Your task to perform on an android device: manage bookmarks in the chrome app Image 0: 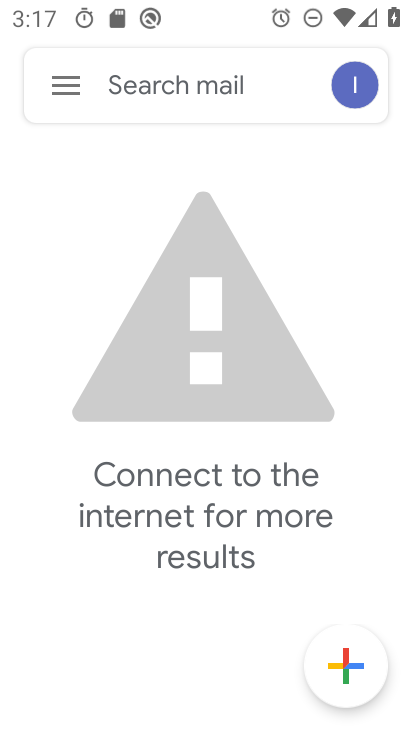
Step 0: press home button
Your task to perform on an android device: manage bookmarks in the chrome app Image 1: 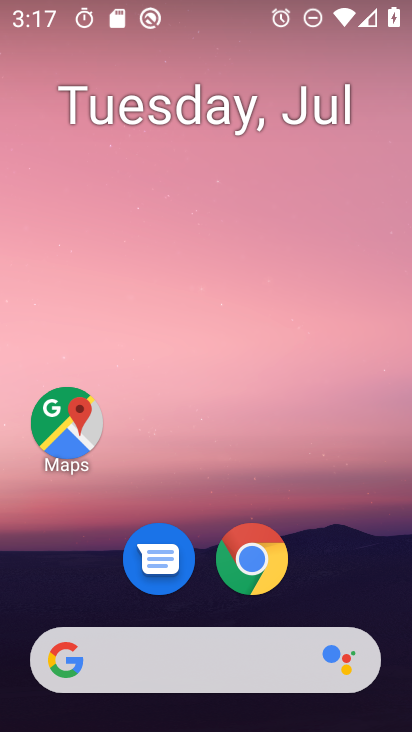
Step 1: drag from (353, 589) to (337, 131)
Your task to perform on an android device: manage bookmarks in the chrome app Image 2: 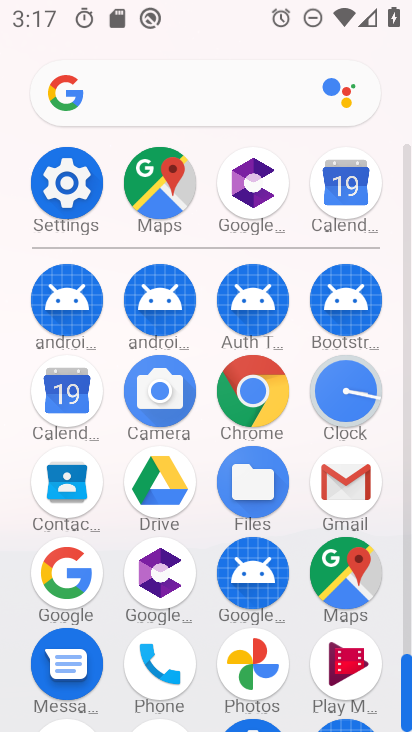
Step 2: click (272, 379)
Your task to perform on an android device: manage bookmarks in the chrome app Image 3: 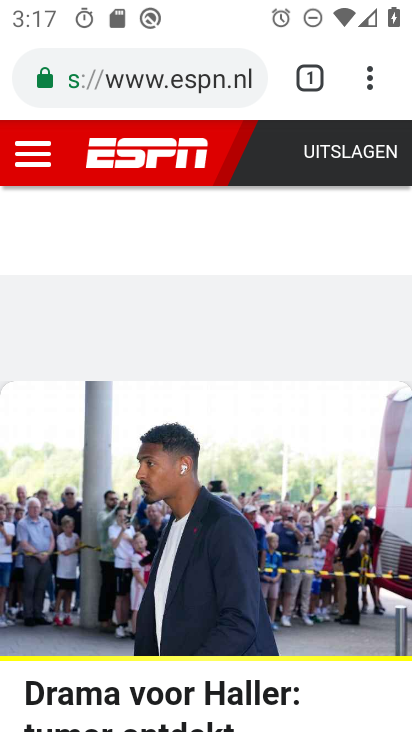
Step 3: click (370, 85)
Your task to perform on an android device: manage bookmarks in the chrome app Image 4: 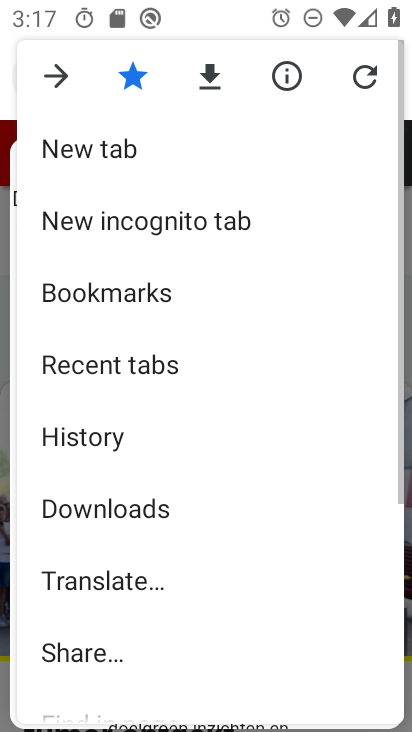
Step 4: click (188, 295)
Your task to perform on an android device: manage bookmarks in the chrome app Image 5: 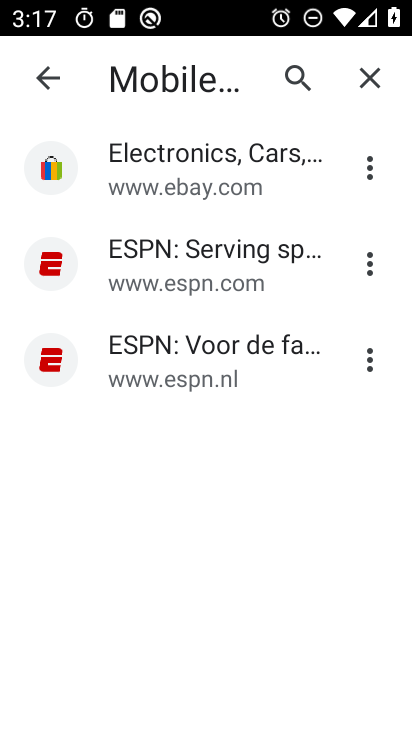
Step 5: click (375, 166)
Your task to perform on an android device: manage bookmarks in the chrome app Image 6: 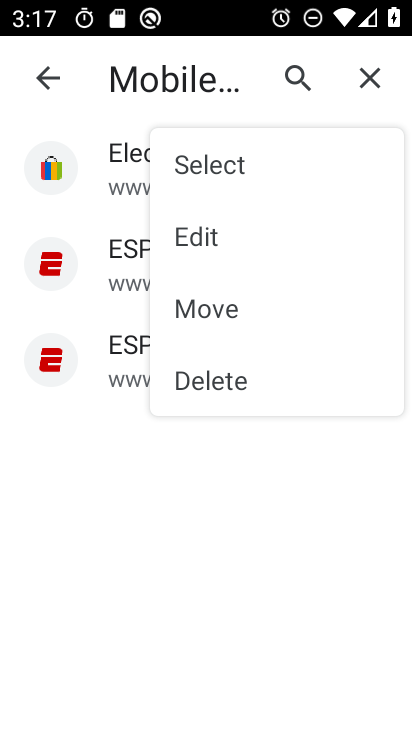
Step 6: click (290, 234)
Your task to perform on an android device: manage bookmarks in the chrome app Image 7: 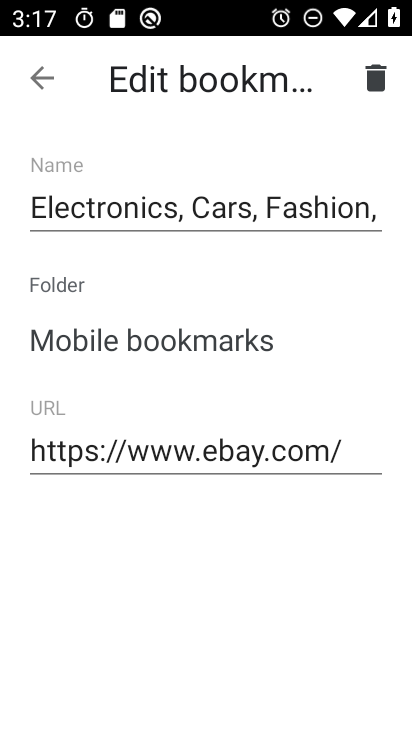
Step 7: click (264, 202)
Your task to perform on an android device: manage bookmarks in the chrome app Image 8: 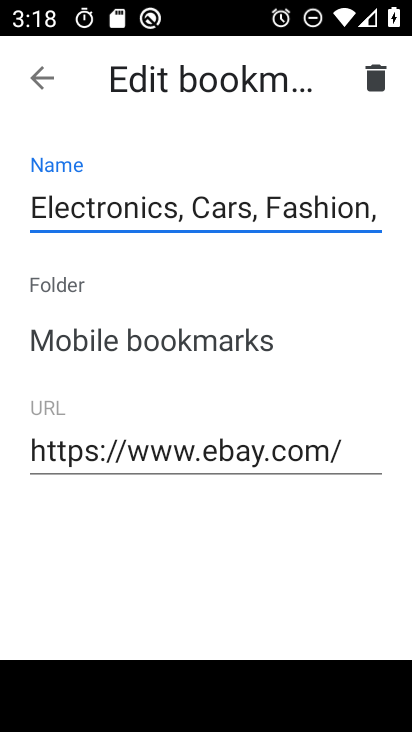
Step 8: type "f"
Your task to perform on an android device: manage bookmarks in the chrome app Image 9: 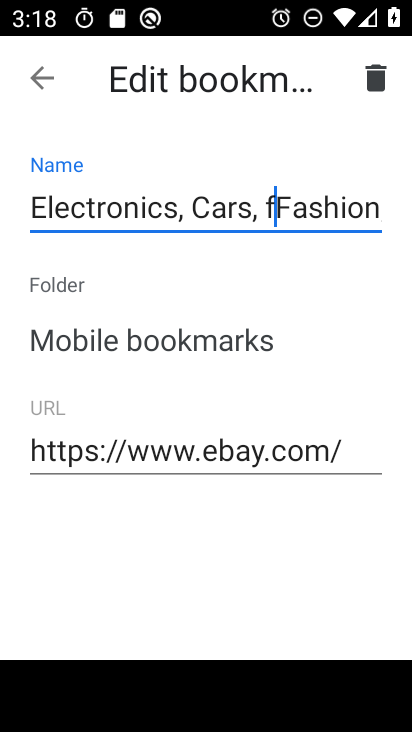
Step 9: click (46, 89)
Your task to perform on an android device: manage bookmarks in the chrome app Image 10: 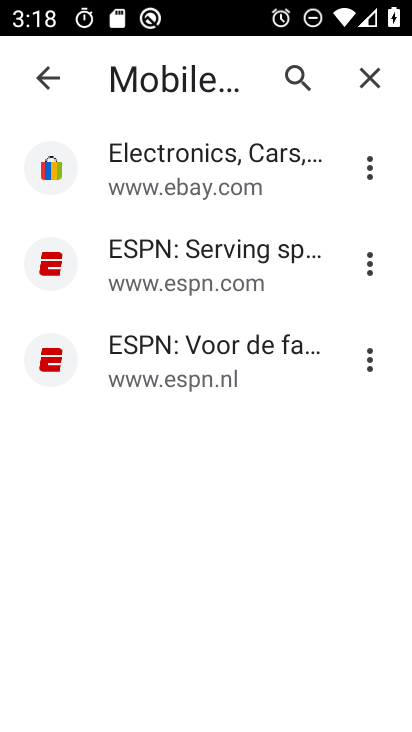
Step 10: task complete